Your task to perform on an android device: What's on my calendar tomorrow? Image 0: 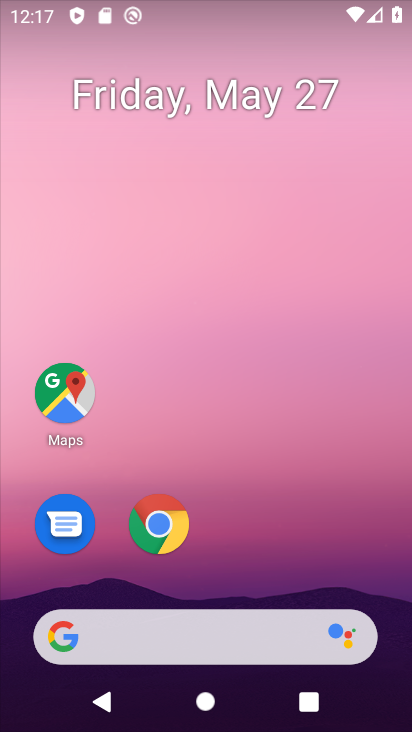
Step 0: drag from (250, 544) to (266, 78)
Your task to perform on an android device: What's on my calendar tomorrow? Image 1: 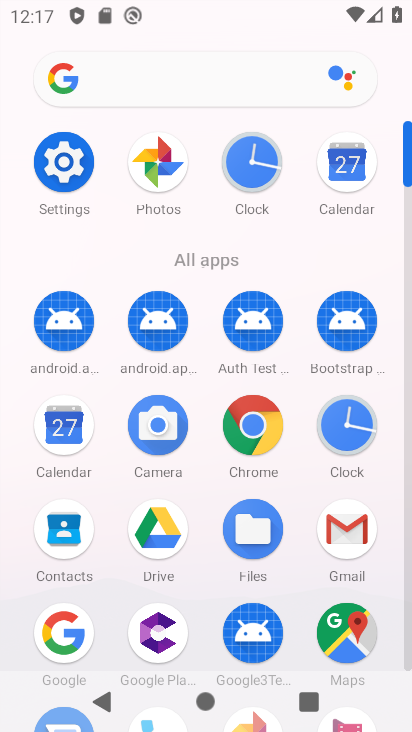
Step 1: click (342, 154)
Your task to perform on an android device: What's on my calendar tomorrow? Image 2: 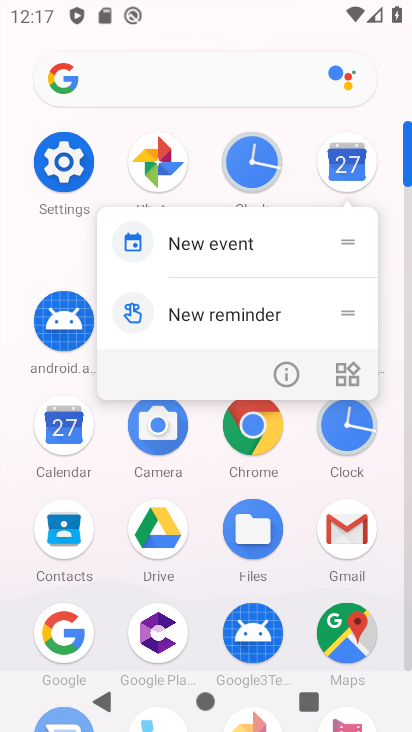
Step 2: click (349, 162)
Your task to perform on an android device: What's on my calendar tomorrow? Image 3: 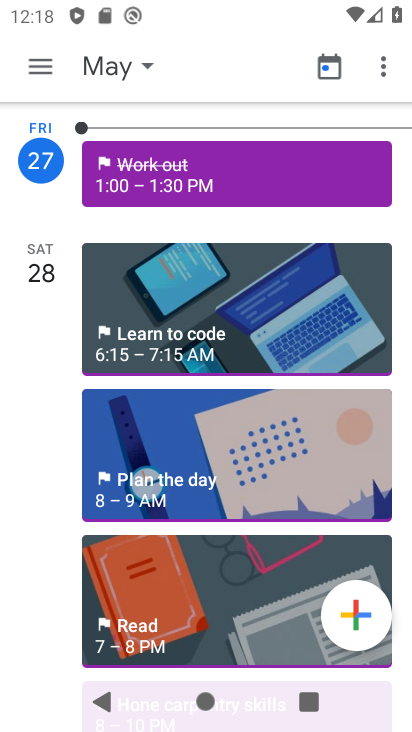
Step 3: task complete